Your task to perform on an android device: Show me recent news Image 0: 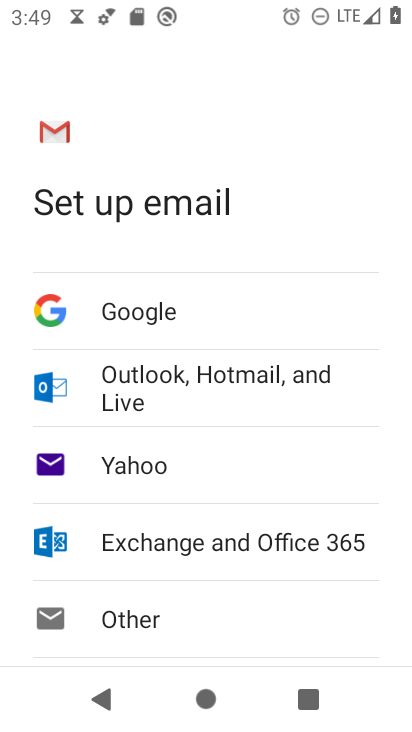
Step 0: press home button
Your task to perform on an android device: Show me recent news Image 1: 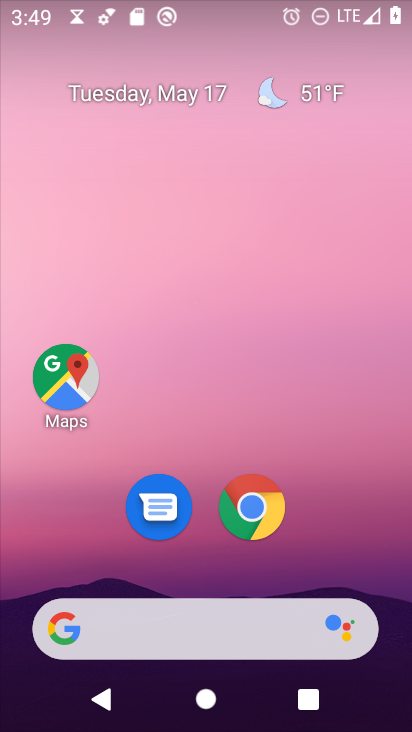
Step 1: click (144, 621)
Your task to perform on an android device: Show me recent news Image 2: 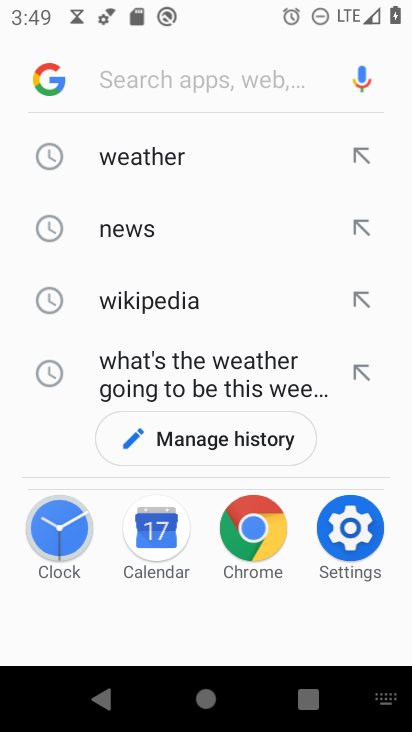
Step 2: type "recent news"
Your task to perform on an android device: Show me recent news Image 3: 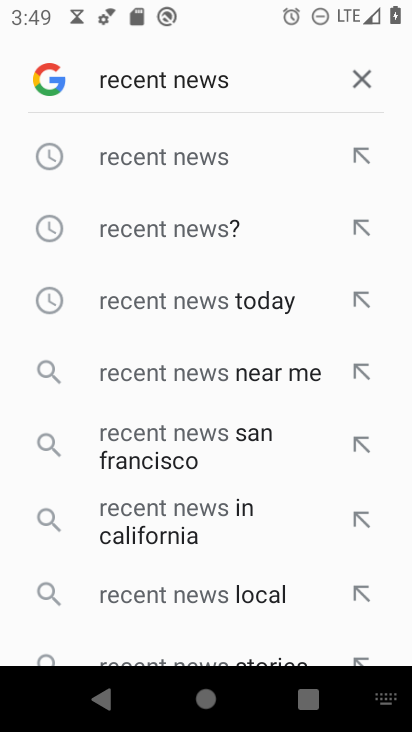
Step 3: click (191, 156)
Your task to perform on an android device: Show me recent news Image 4: 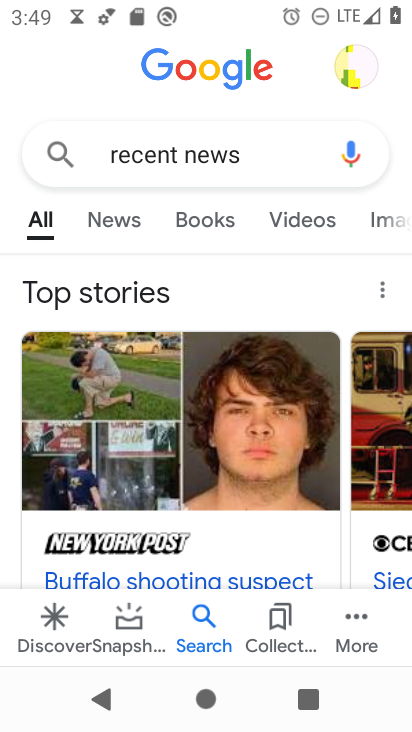
Step 4: click (133, 234)
Your task to perform on an android device: Show me recent news Image 5: 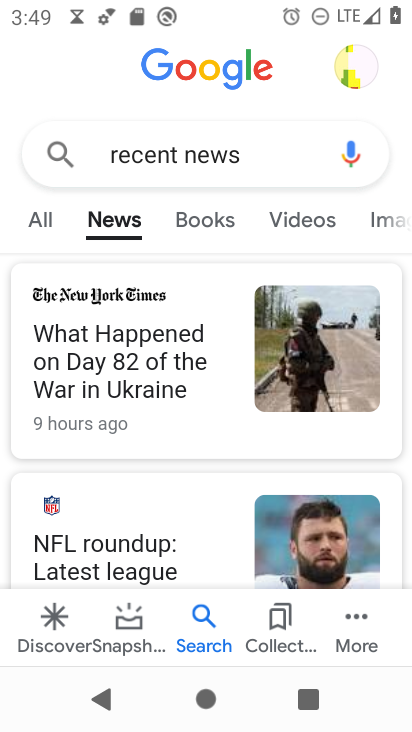
Step 5: task complete